Your task to perform on an android device: turn off priority inbox in the gmail app Image 0: 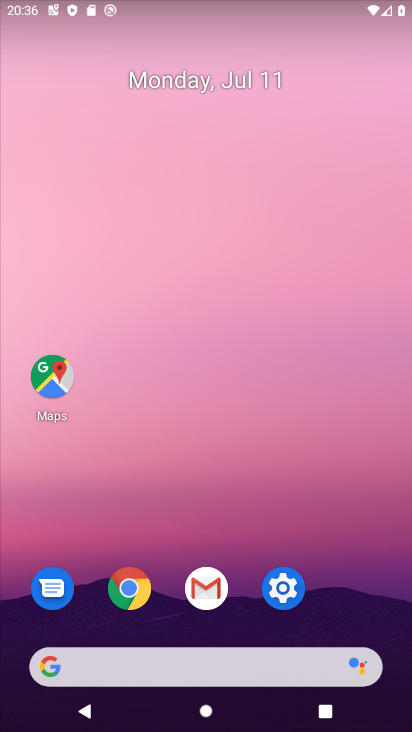
Step 0: drag from (268, 681) to (186, 254)
Your task to perform on an android device: turn off priority inbox in the gmail app Image 1: 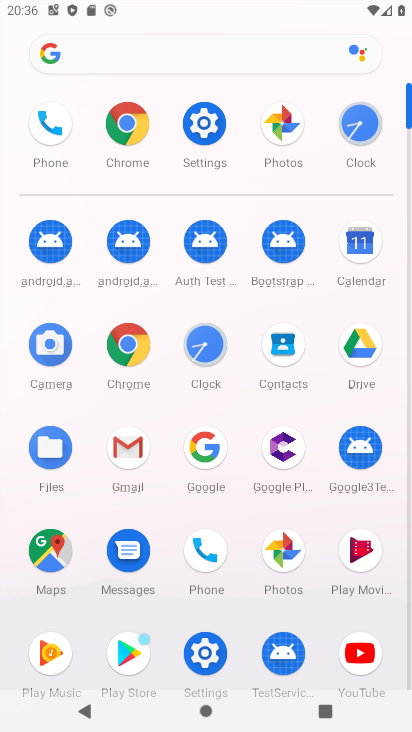
Step 1: click (143, 445)
Your task to perform on an android device: turn off priority inbox in the gmail app Image 2: 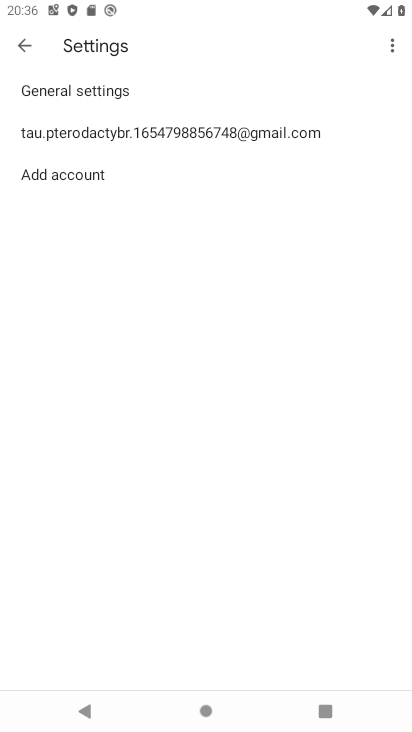
Step 2: click (84, 135)
Your task to perform on an android device: turn off priority inbox in the gmail app Image 3: 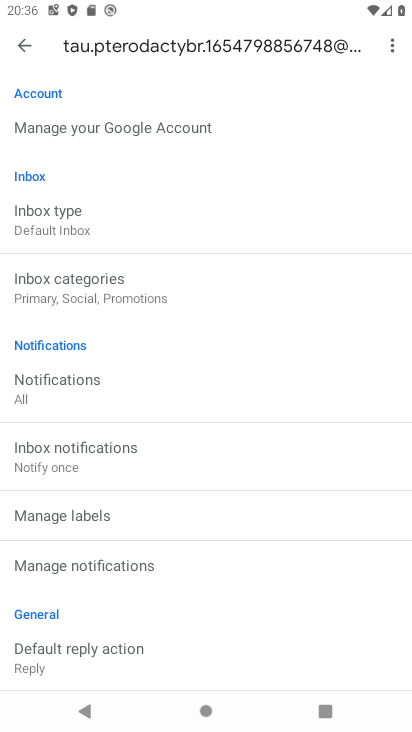
Step 3: click (80, 234)
Your task to perform on an android device: turn off priority inbox in the gmail app Image 4: 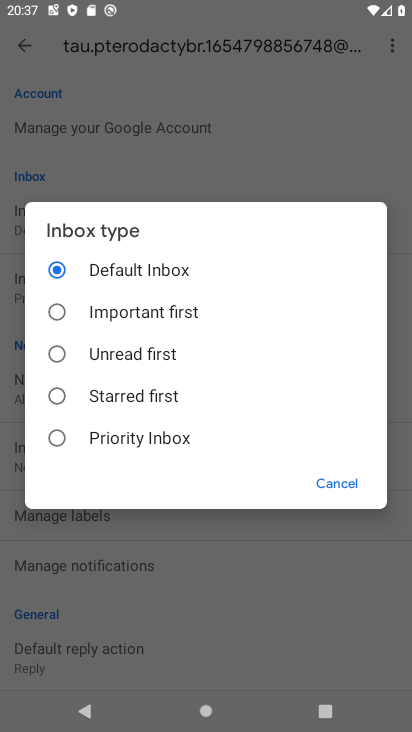
Step 4: task complete